Your task to perform on an android device: toggle show notifications on the lock screen Image 0: 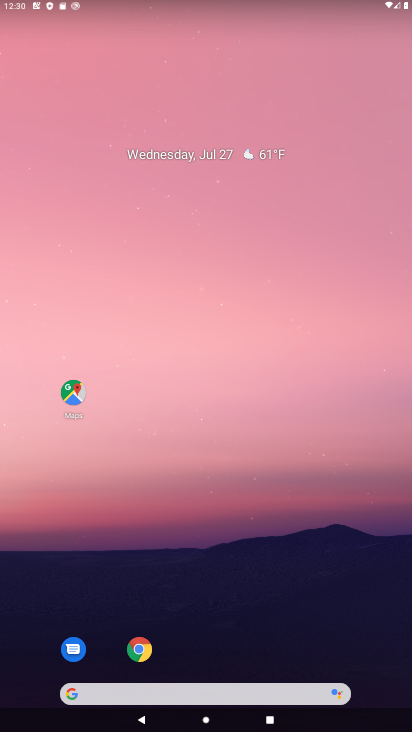
Step 0: drag from (298, 604) to (237, 50)
Your task to perform on an android device: toggle show notifications on the lock screen Image 1: 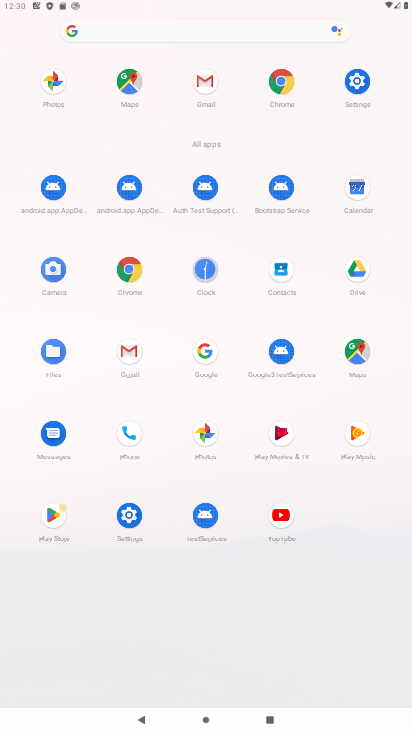
Step 1: click (356, 101)
Your task to perform on an android device: toggle show notifications on the lock screen Image 2: 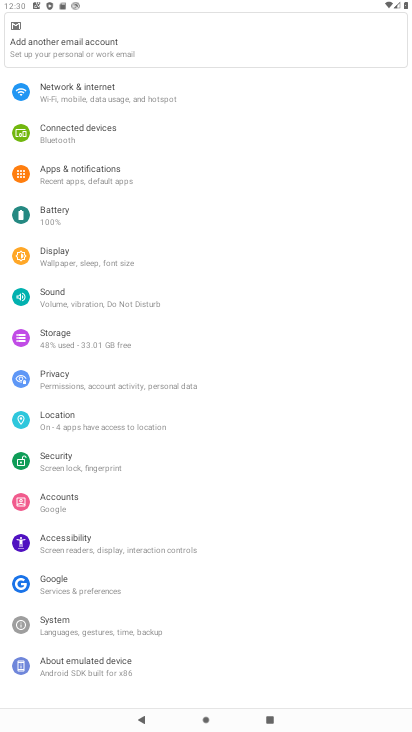
Step 2: click (134, 180)
Your task to perform on an android device: toggle show notifications on the lock screen Image 3: 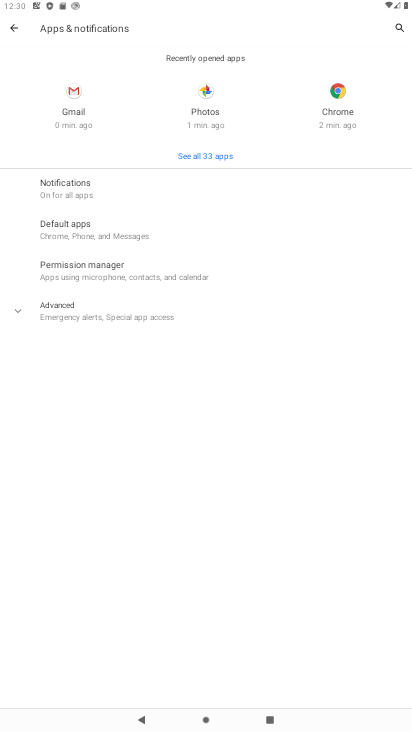
Step 3: click (125, 198)
Your task to perform on an android device: toggle show notifications on the lock screen Image 4: 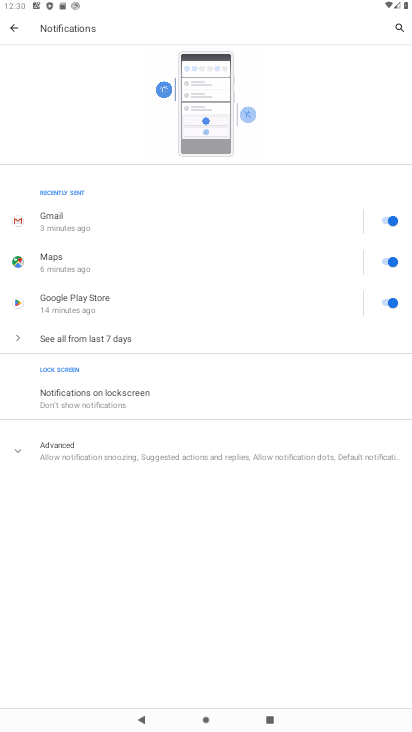
Step 4: click (129, 396)
Your task to perform on an android device: toggle show notifications on the lock screen Image 5: 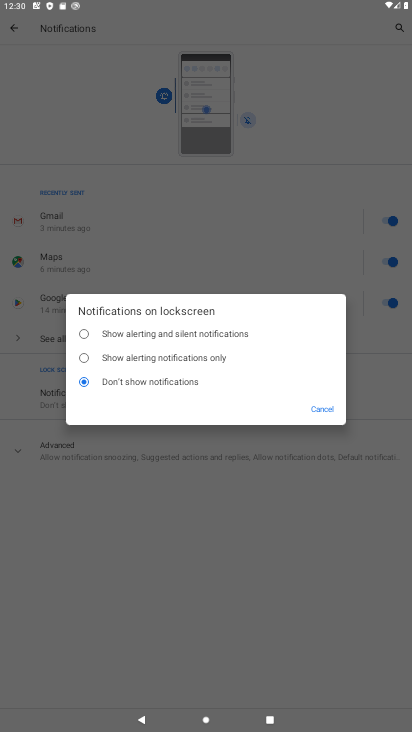
Step 5: click (150, 355)
Your task to perform on an android device: toggle show notifications on the lock screen Image 6: 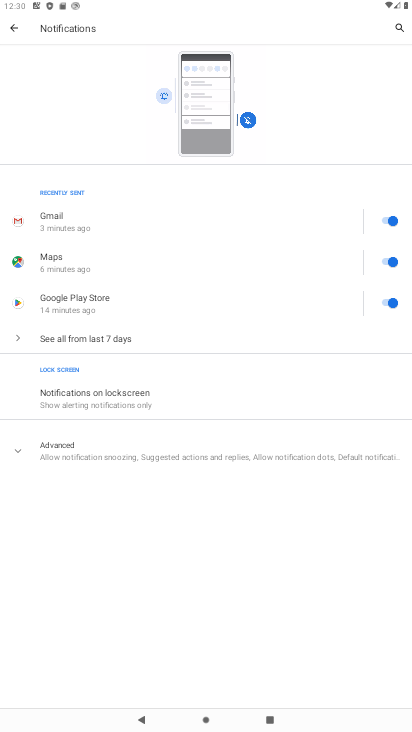
Step 6: task complete